Your task to perform on an android device: Show me the alarms in the clock app Image 0: 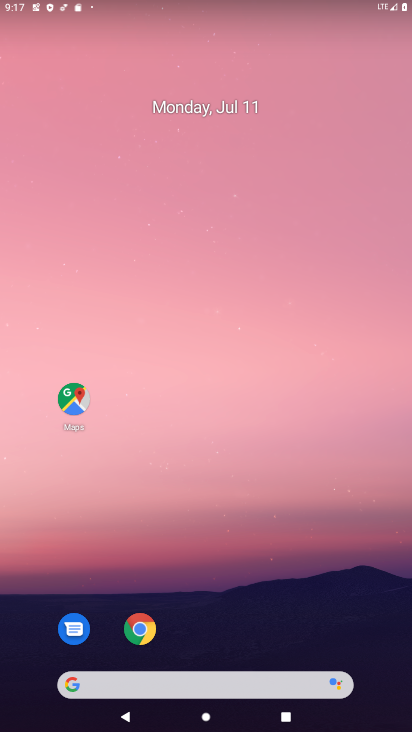
Step 0: drag from (92, 221) to (122, 17)
Your task to perform on an android device: Show me the alarms in the clock app Image 1: 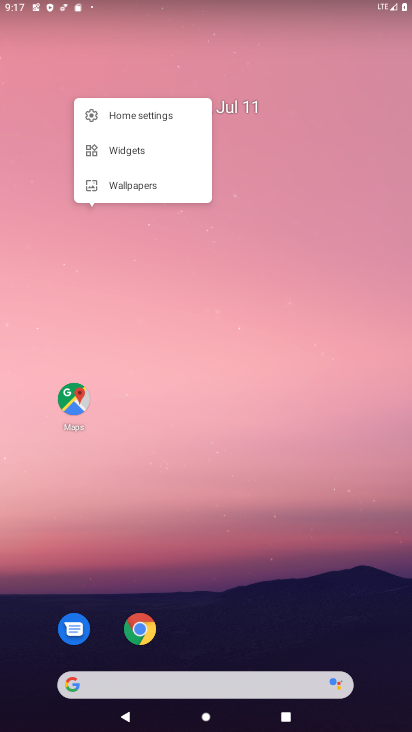
Step 1: drag from (26, 722) to (159, 75)
Your task to perform on an android device: Show me the alarms in the clock app Image 2: 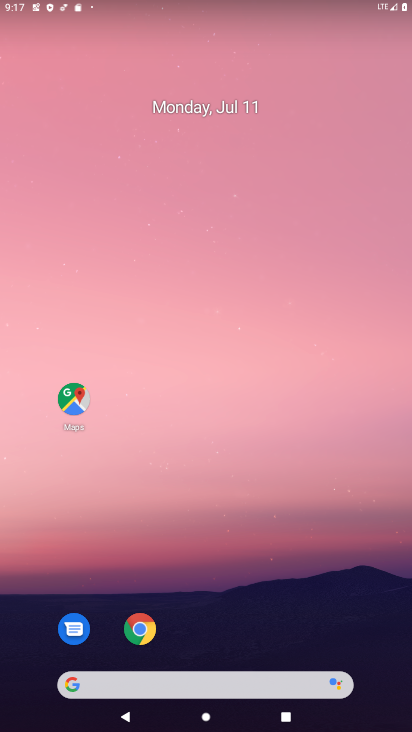
Step 2: drag from (34, 729) to (39, 61)
Your task to perform on an android device: Show me the alarms in the clock app Image 3: 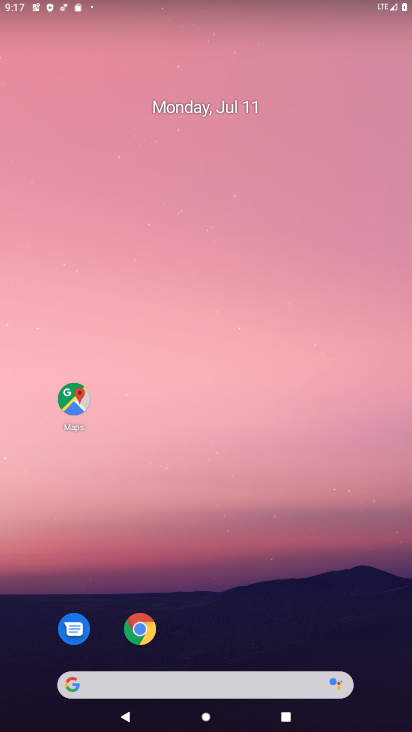
Step 3: drag from (22, 693) to (115, 61)
Your task to perform on an android device: Show me the alarms in the clock app Image 4: 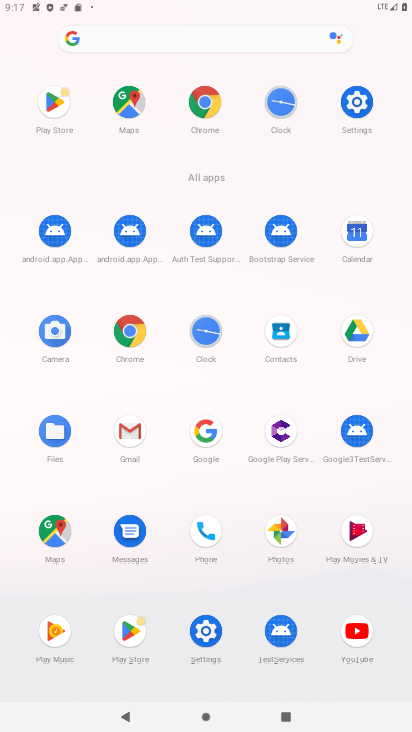
Step 4: click (185, 338)
Your task to perform on an android device: Show me the alarms in the clock app Image 5: 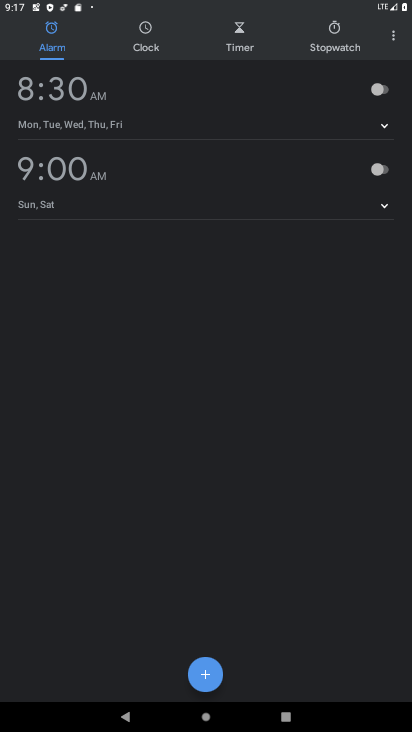
Step 5: task complete